Your task to perform on an android device: turn on airplane mode Image 0: 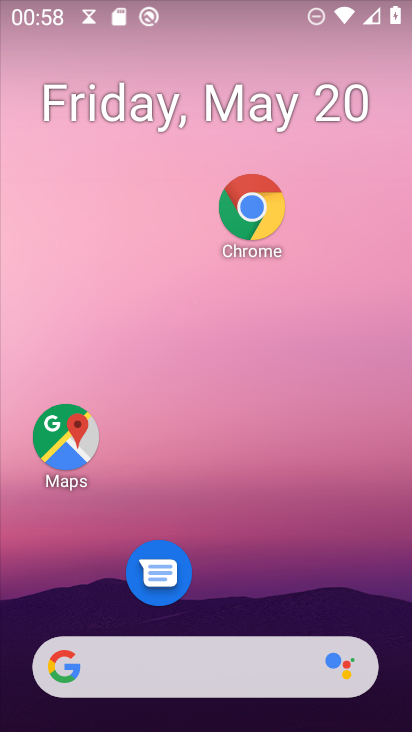
Step 0: drag from (264, 555) to (327, 13)
Your task to perform on an android device: turn on airplane mode Image 1: 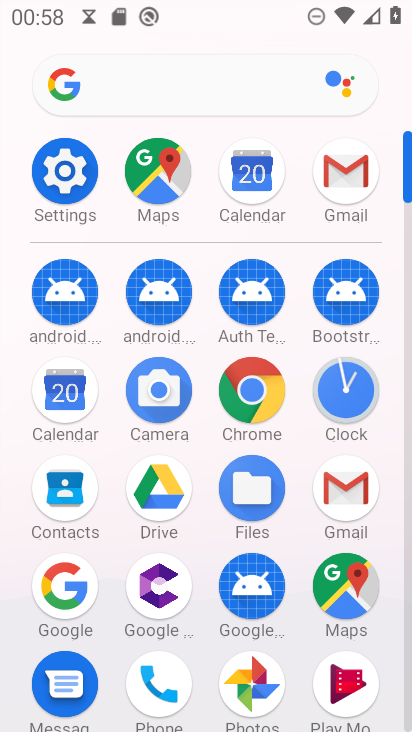
Step 1: click (57, 179)
Your task to perform on an android device: turn on airplane mode Image 2: 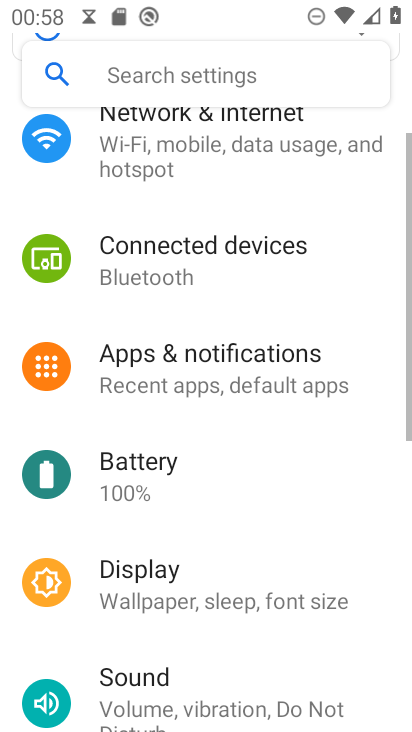
Step 2: drag from (204, 219) to (245, 562)
Your task to perform on an android device: turn on airplane mode Image 3: 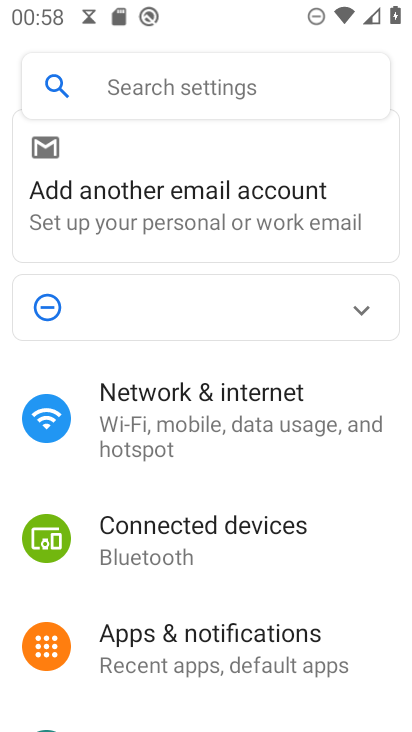
Step 3: click (240, 395)
Your task to perform on an android device: turn on airplane mode Image 4: 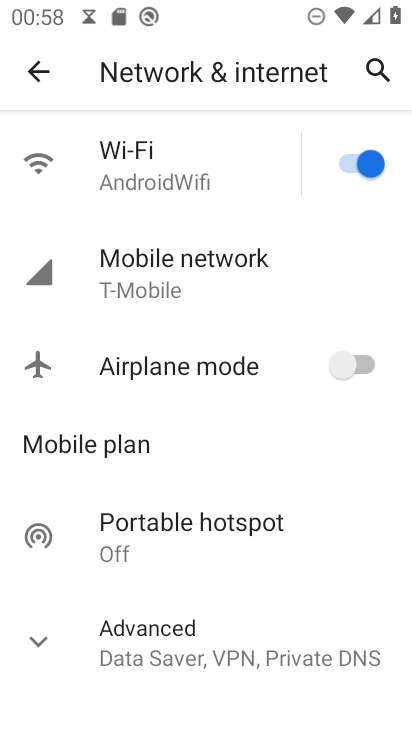
Step 4: click (347, 364)
Your task to perform on an android device: turn on airplane mode Image 5: 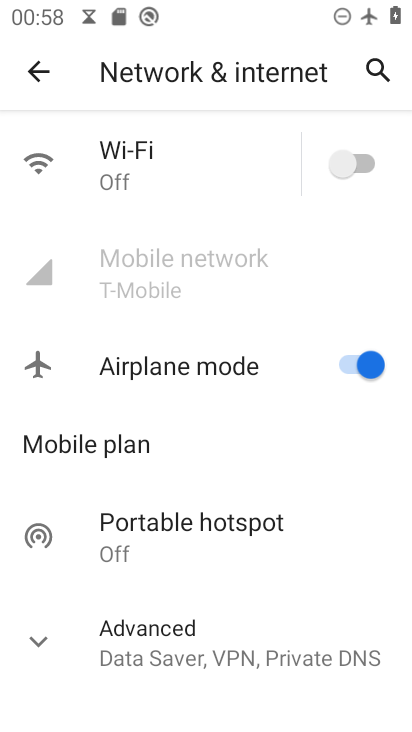
Step 5: task complete